Your task to perform on an android device: Go to Maps Image 0: 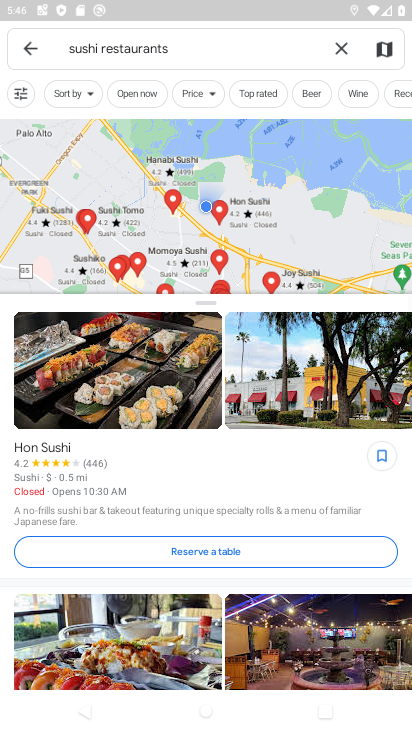
Step 0: press home button
Your task to perform on an android device: Go to Maps Image 1: 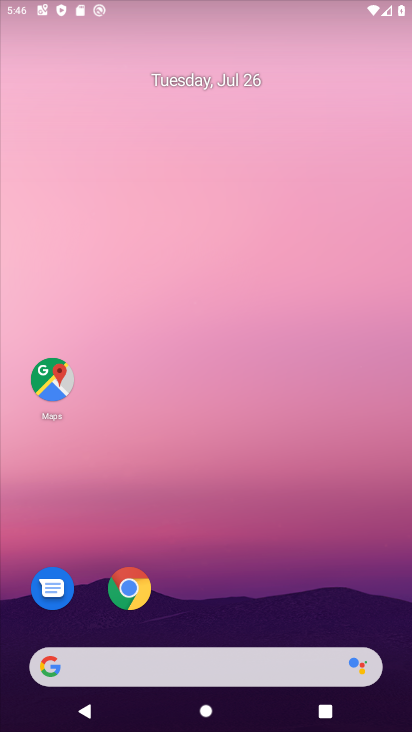
Step 1: drag from (267, 686) to (261, 202)
Your task to perform on an android device: Go to Maps Image 2: 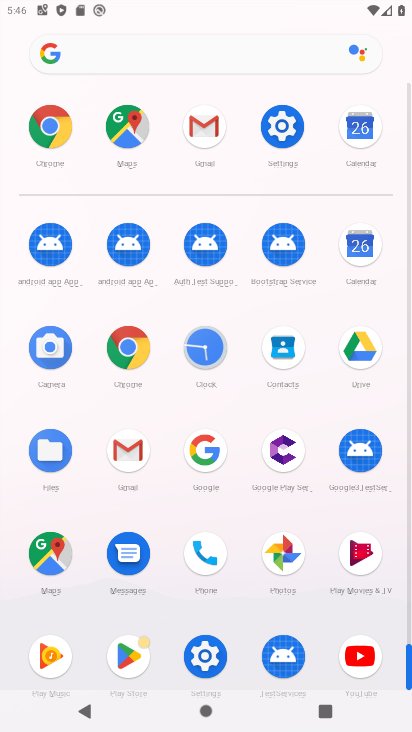
Step 2: drag from (215, 494) to (210, 233)
Your task to perform on an android device: Go to Maps Image 3: 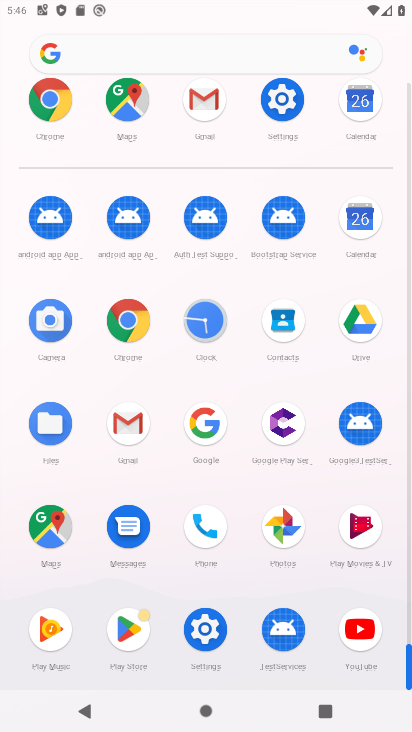
Step 3: click (55, 510)
Your task to perform on an android device: Go to Maps Image 4: 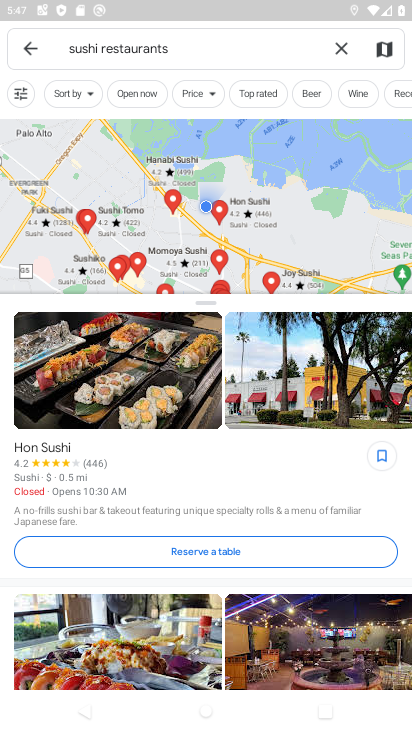
Step 4: task complete